Your task to perform on an android device: Open Youtube and go to "Your channel" Image 0: 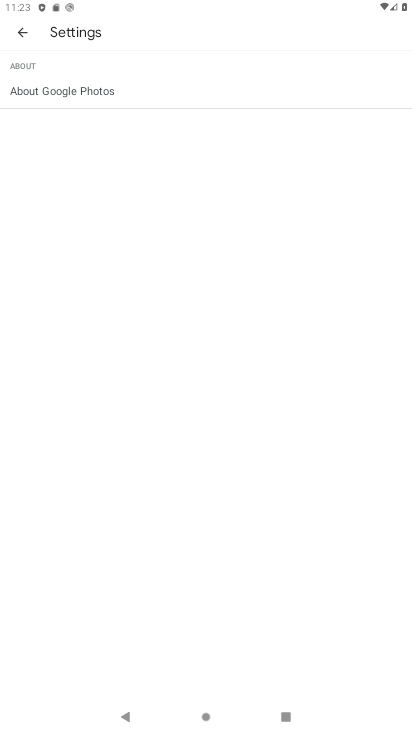
Step 0: press home button
Your task to perform on an android device: Open Youtube and go to "Your channel" Image 1: 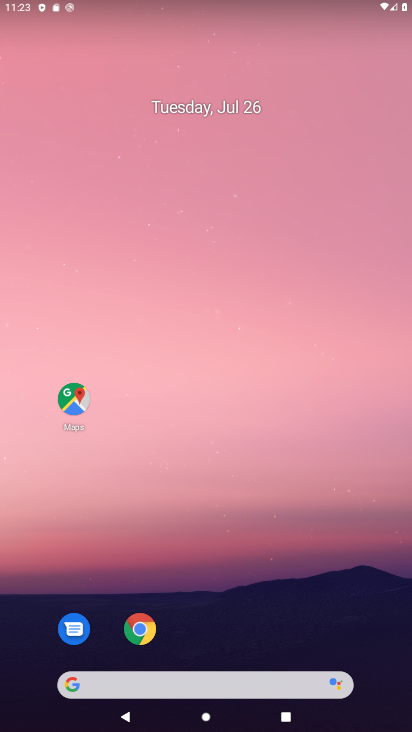
Step 1: drag from (231, 725) to (231, 220)
Your task to perform on an android device: Open Youtube and go to "Your channel" Image 2: 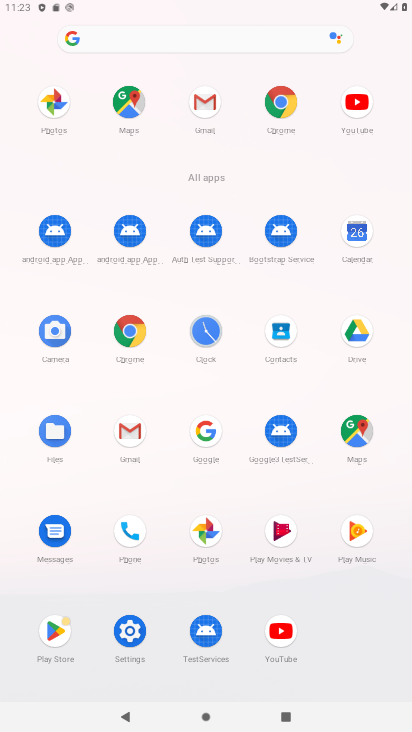
Step 2: click (277, 630)
Your task to perform on an android device: Open Youtube and go to "Your channel" Image 3: 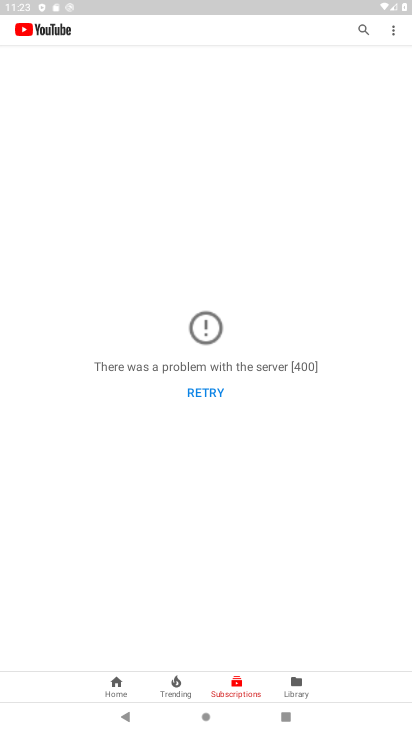
Step 3: task complete